Your task to perform on an android device: star an email in the gmail app Image 0: 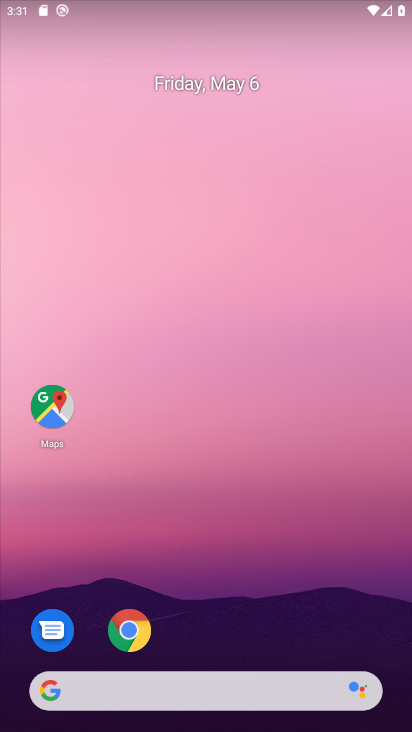
Step 0: drag from (185, 608) to (313, 232)
Your task to perform on an android device: star an email in the gmail app Image 1: 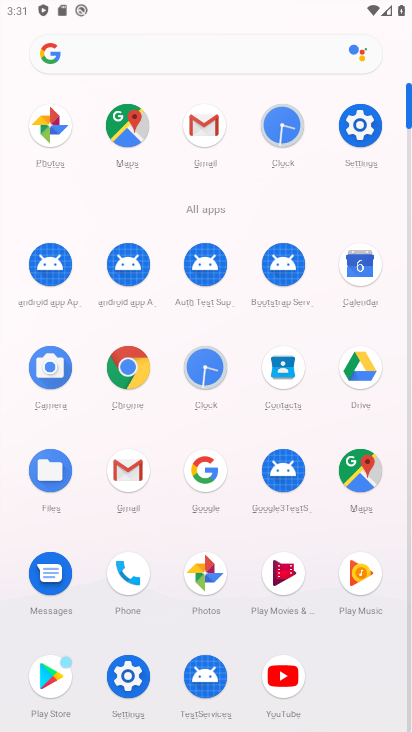
Step 1: click (190, 103)
Your task to perform on an android device: star an email in the gmail app Image 2: 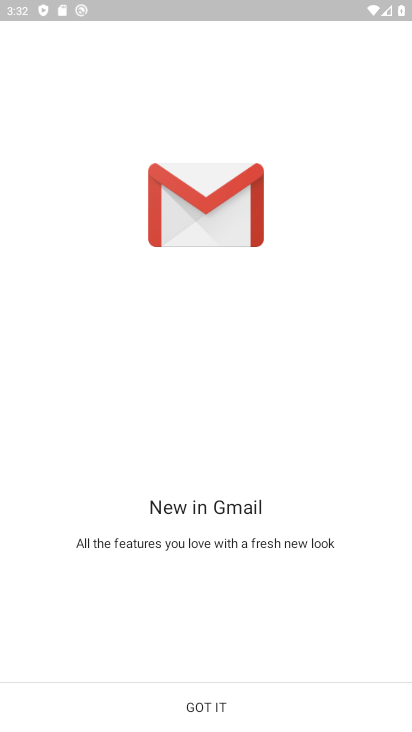
Step 2: click (243, 707)
Your task to perform on an android device: star an email in the gmail app Image 3: 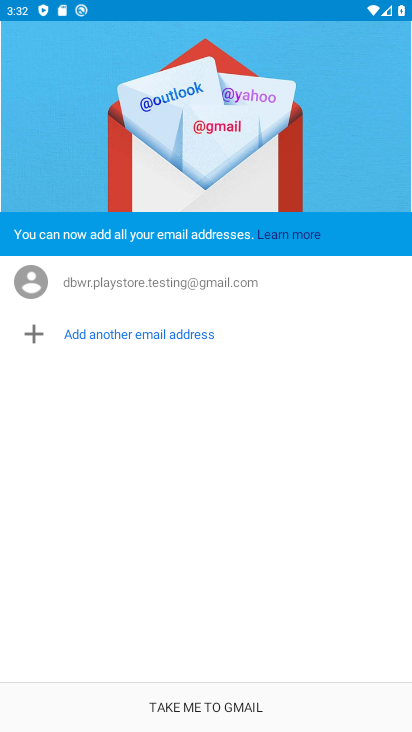
Step 3: click (215, 712)
Your task to perform on an android device: star an email in the gmail app Image 4: 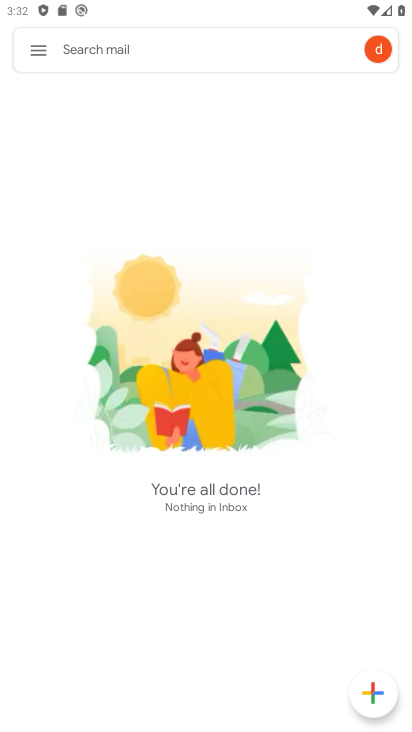
Step 4: click (40, 55)
Your task to perform on an android device: star an email in the gmail app Image 5: 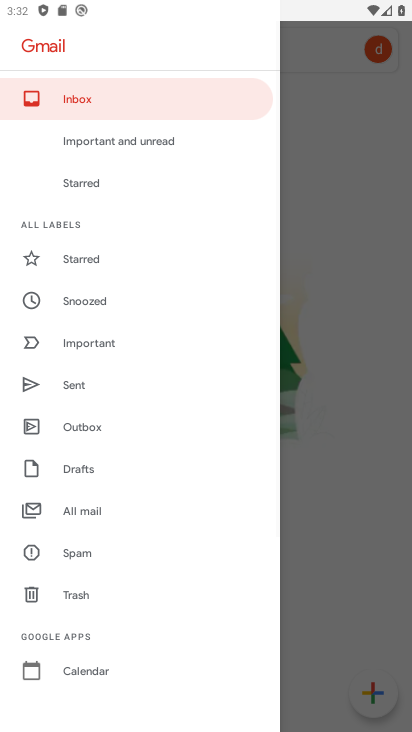
Step 5: click (91, 516)
Your task to perform on an android device: star an email in the gmail app Image 6: 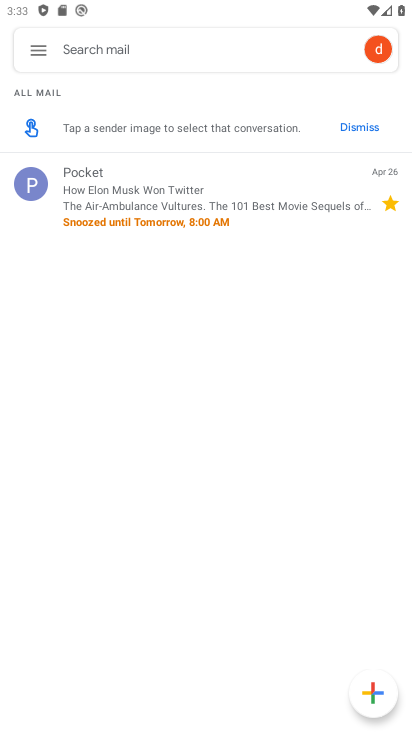
Step 6: click (147, 209)
Your task to perform on an android device: star an email in the gmail app Image 7: 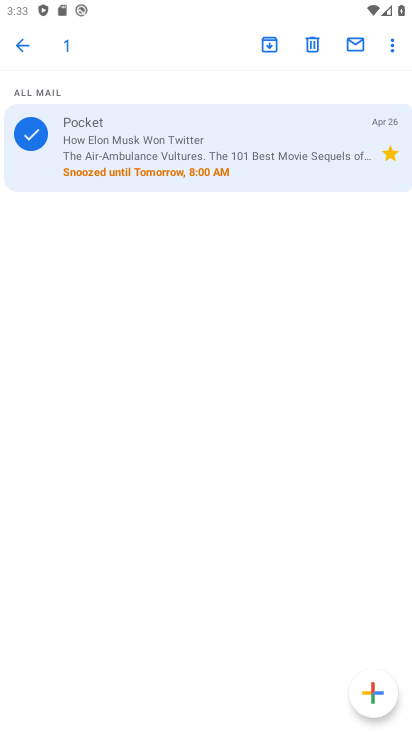
Step 7: click (389, 35)
Your task to perform on an android device: star an email in the gmail app Image 8: 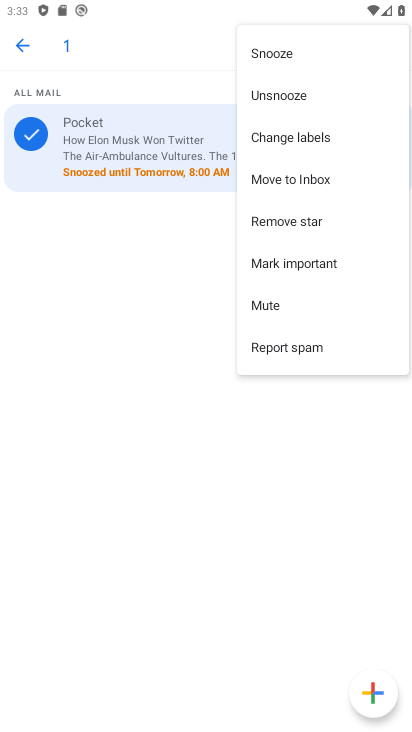
Step 8: click (141, 366)
Your task to perform on an android device: star an email in the gmail app Image 9: 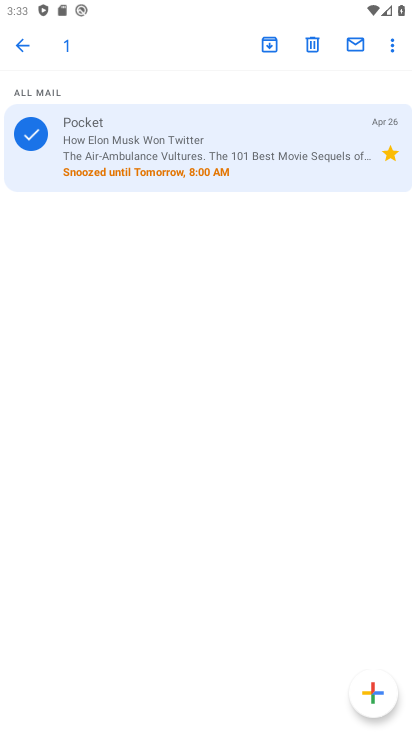
Step 9: task complete